Your task to perform on an android device: Open Chrome and go to settings Image 0: 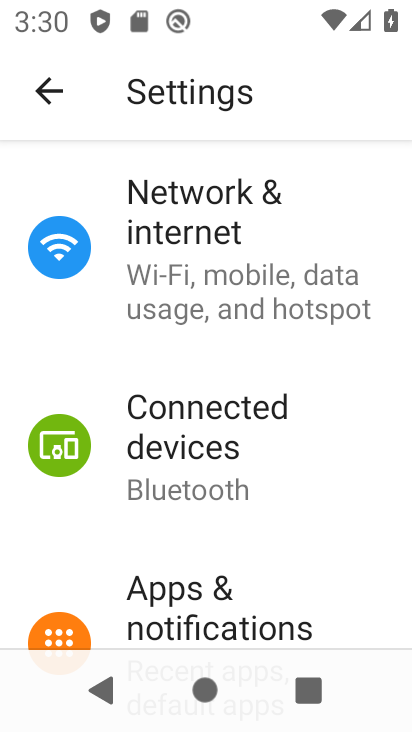
Step 0: task complete